Your task to perform on an android device: turn notification dots on Image 0: 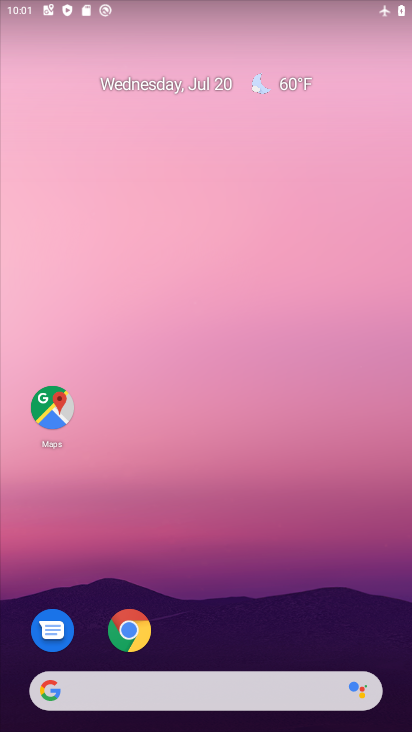
Step 0: drag from (246, 661) to (218, 221)
Your task to perform on an android device: turn notification dots on Image 1: 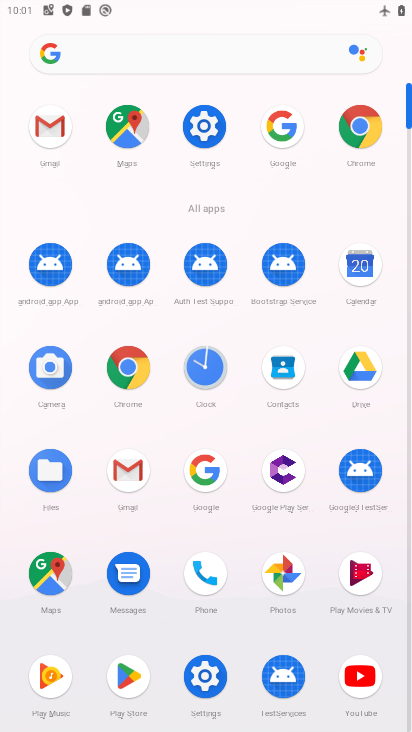
Step 1: click (209, 123)
Your task to perform on an android device: turn notification dots on Image 2: 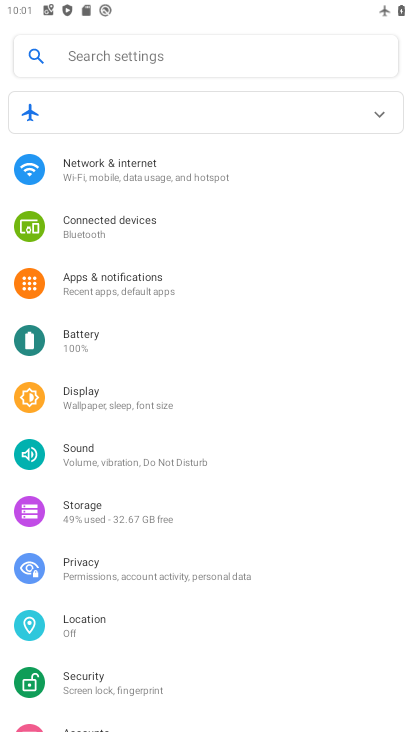
Step 2: click (107, 283)
Your task to perform on an android device: turn notification dots on Image 3: 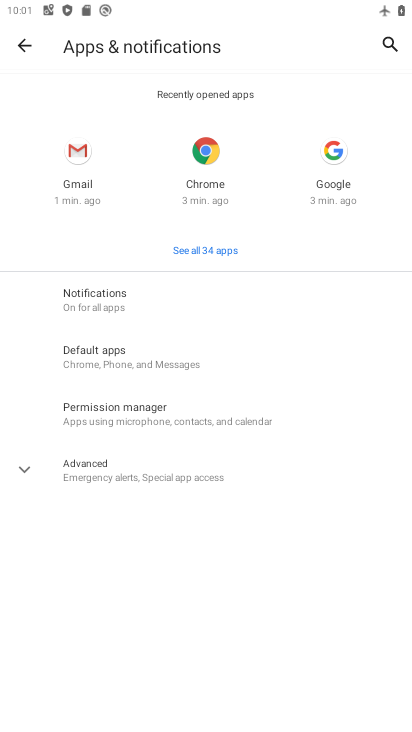
Step 3: click (107, 291)
Your task to perform on an android device: turn notification dots on Image 4: 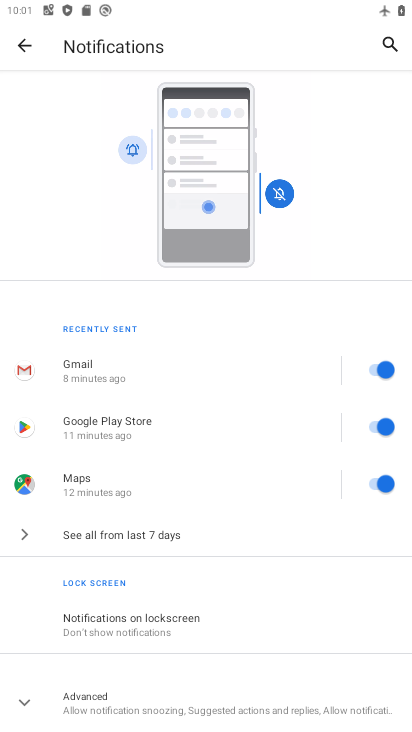
Step 4: click (162, 712)
Your task to perform on an android device: turn notification dots on Image 5: 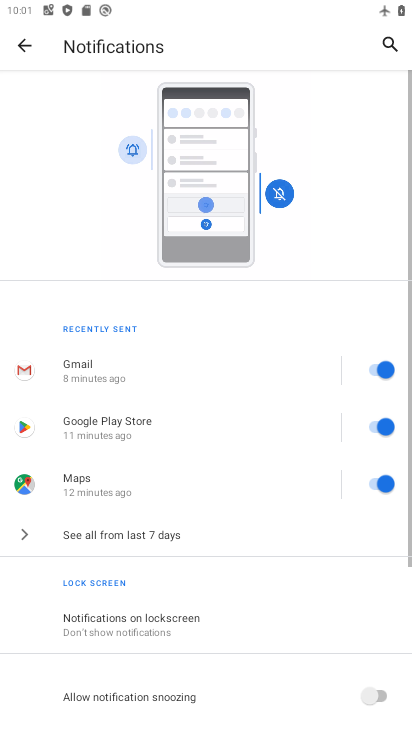
Step 5: drag from (181, 651) to (176, 288)
Your task to perform on an android device: turn notification dots on Image 6: 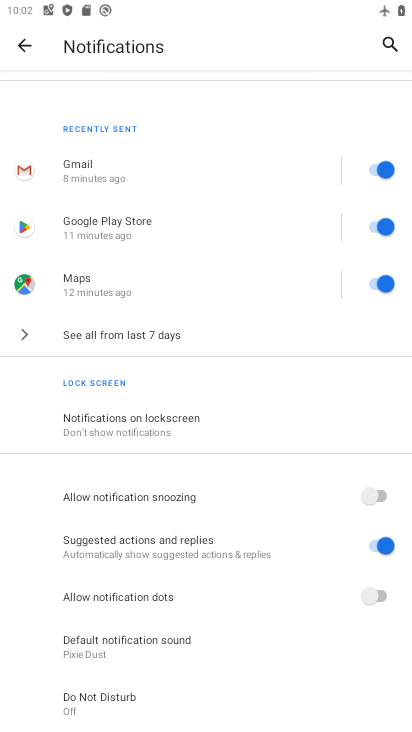
Step 6: click (374, 595)
Your task to perform on an android device: turn notification dots on Image 7: 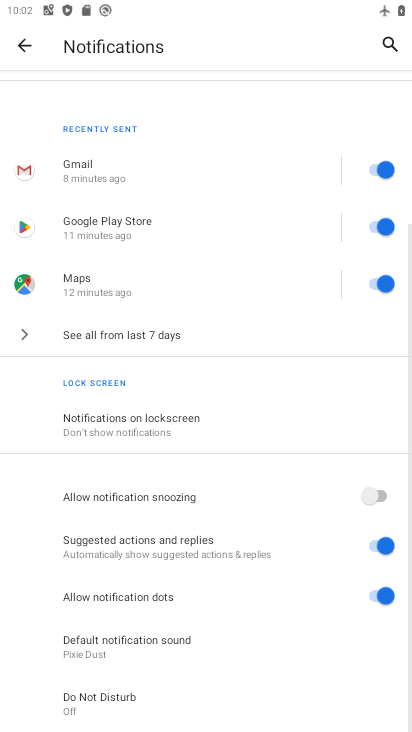
Step 7: task complete